Your task to perform on an android device: see creations saved in the google photos Image 0: 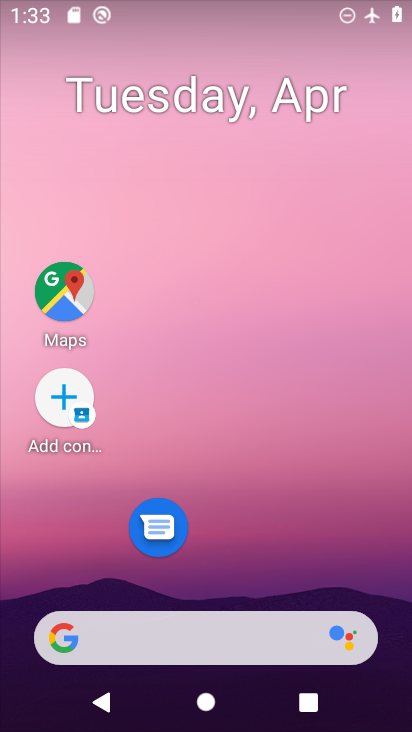
Step 0: drag from (232, 533) to (199, 52)
Your task to perform on an android device: see creations saved in the google photos Image 1: 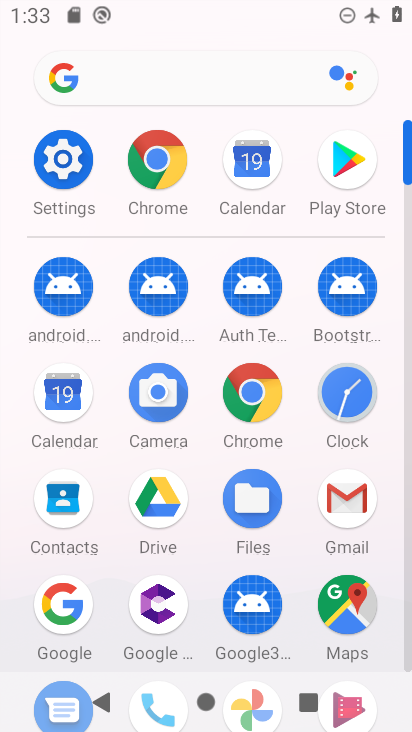
Step 1: drag from (200, 524) to (220, 235)
Your task to perform on an android device: see creations saved in the google photos Image 2: 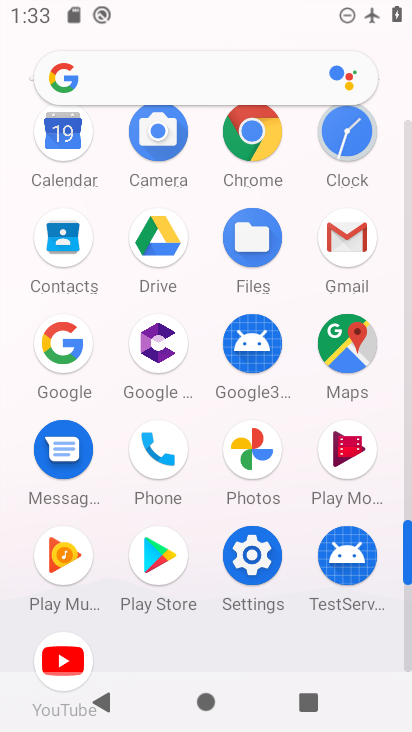
Step 2: click (252, 451)
Your task to perform on an android device: see creations saved in the google photos Image 3: 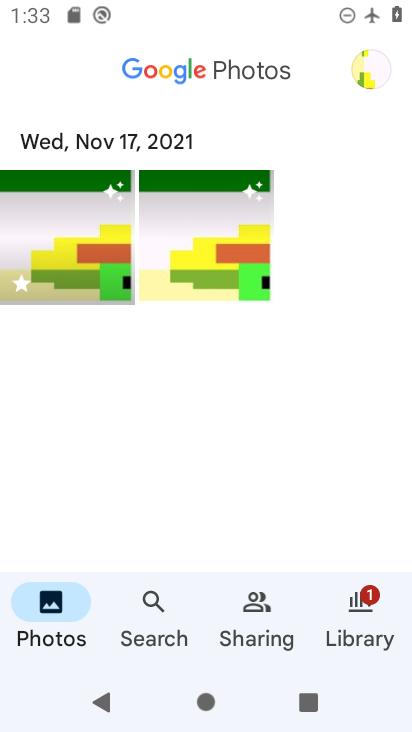
Step 3: click (270, 607)
Your task to perform on an android device: see creations saved in the google photos Image 4: 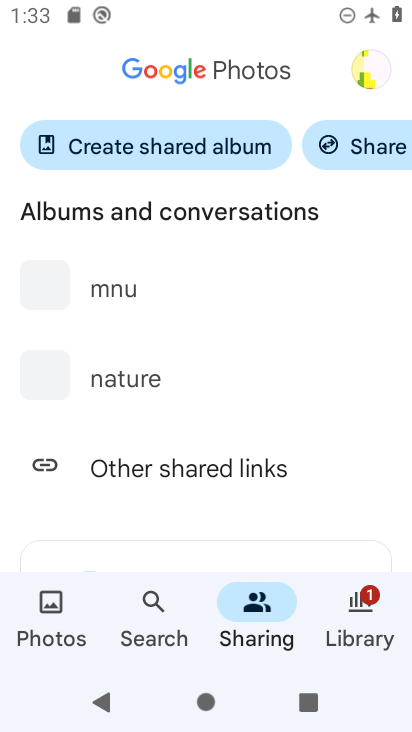
Step 4: drag from (362, 122) to (151, 132)
Your task to perform on an android device: see creations saved in the google photos Image 5: 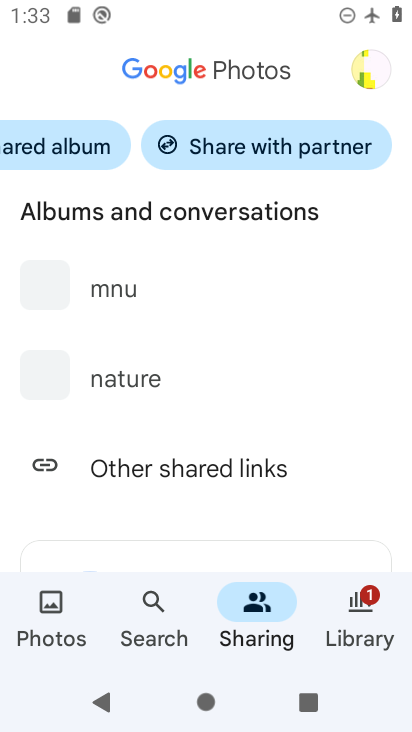
Step 5: click (367, 603)
Your task to perform on an android device: see creations saved in the google photos Image 6: 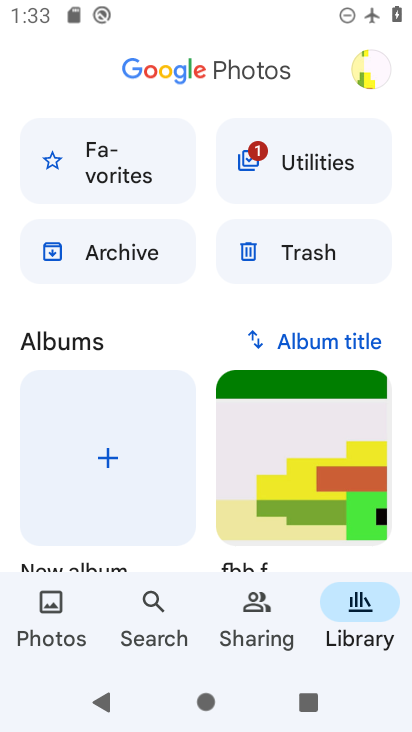
Step 6: task complete